Your task to perform on an android device: uninstall "Yahoo Mail" Image 0: 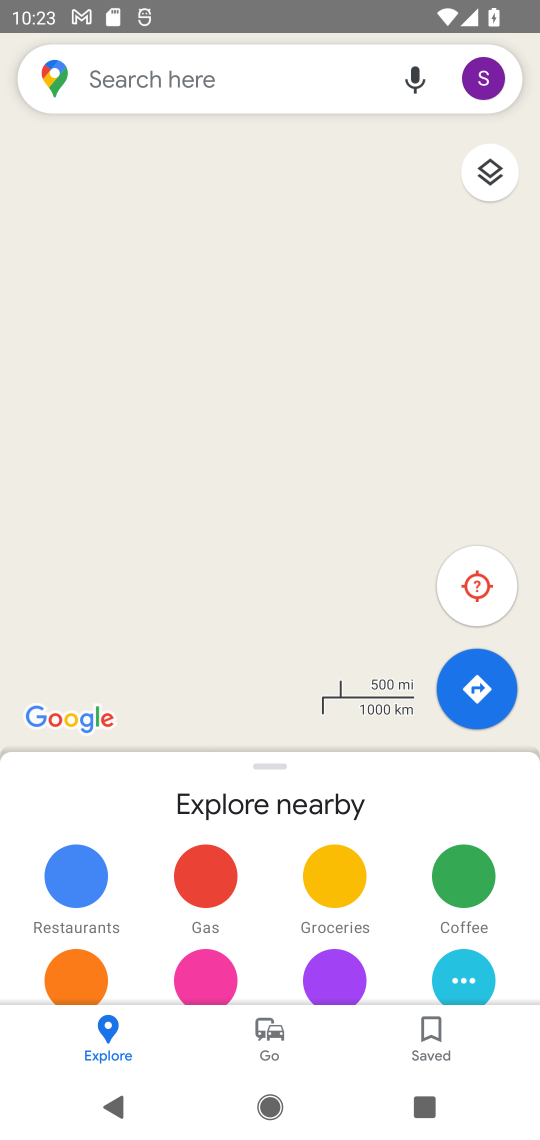
Step 0: press back button
Your task to perform on an android device: uninstall "Yahoo Mail" Image 1: 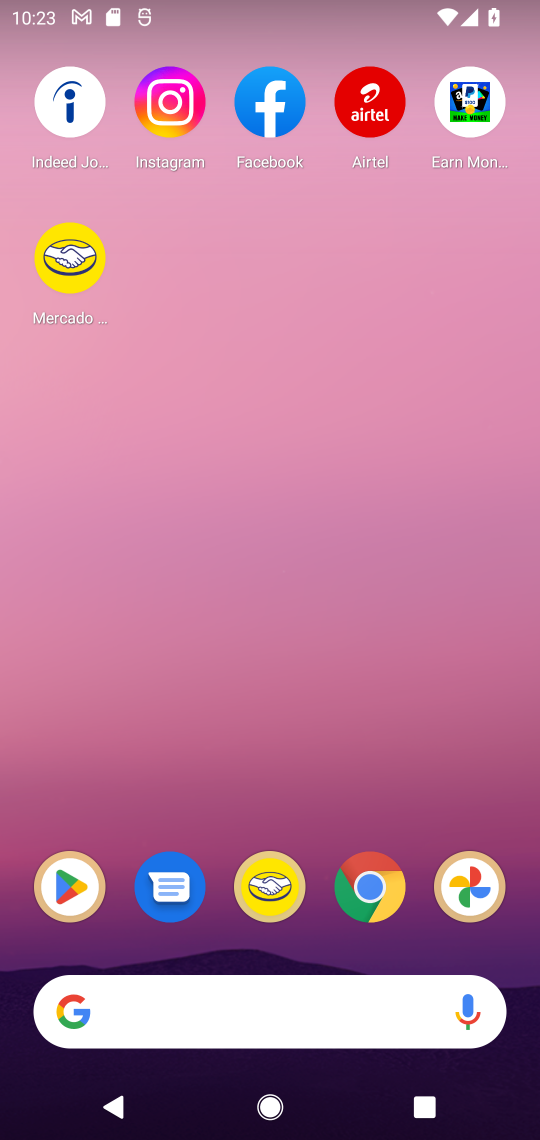
Step 1: drag from (292, 957) to (290, 140)
Your task to perform on an android device: uninstall "Yahoo Mail" Image 2: 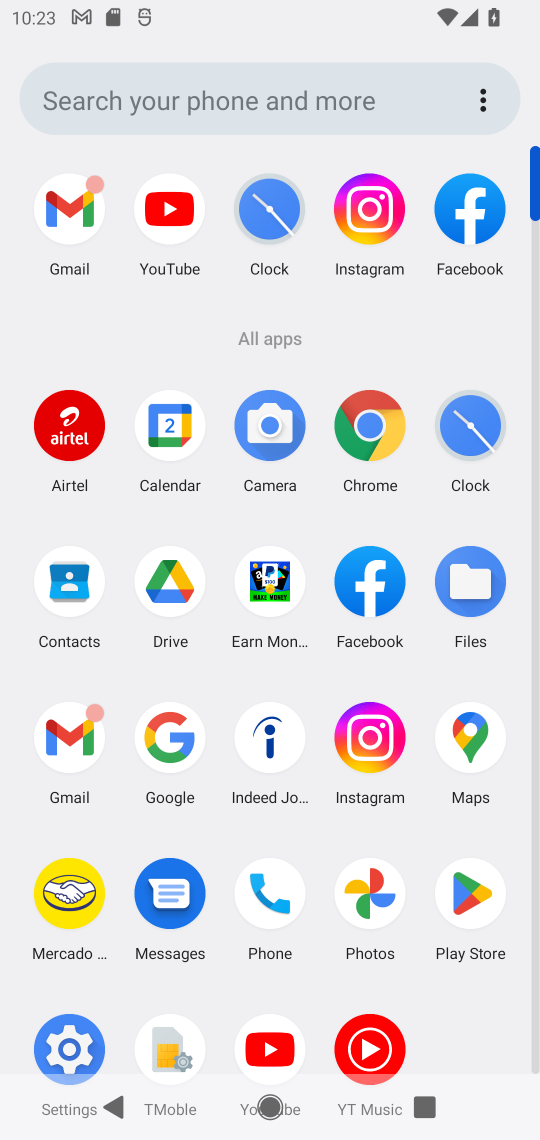
Step 2: click (463, 909)
Your task to perform on an android device: uninstall "Yahoo Mail" Image 3: 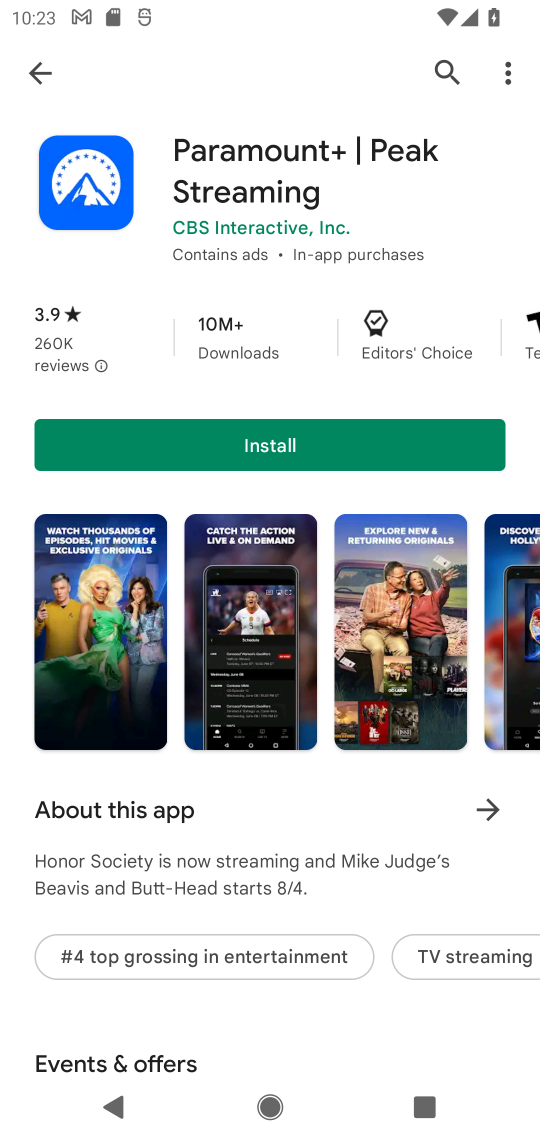
Step 3: click (41, 73)
Your task to perform on an android device: uninstall "Yahoo Mail" Image 4: 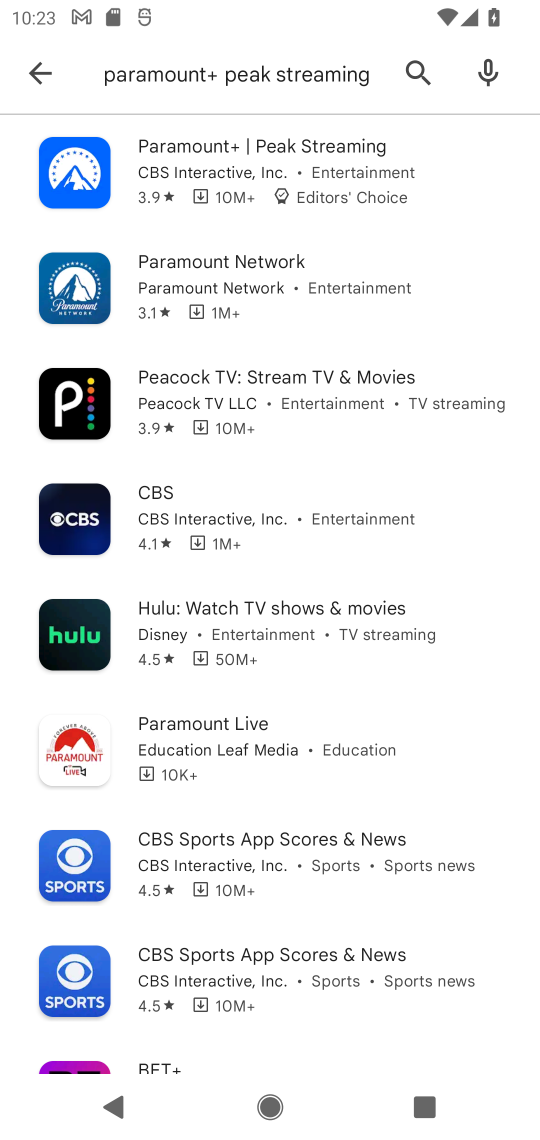
Step 4: click (46, 75)
Your task to perform on an android device: uninstall "Yahoo Mail" Image 5: 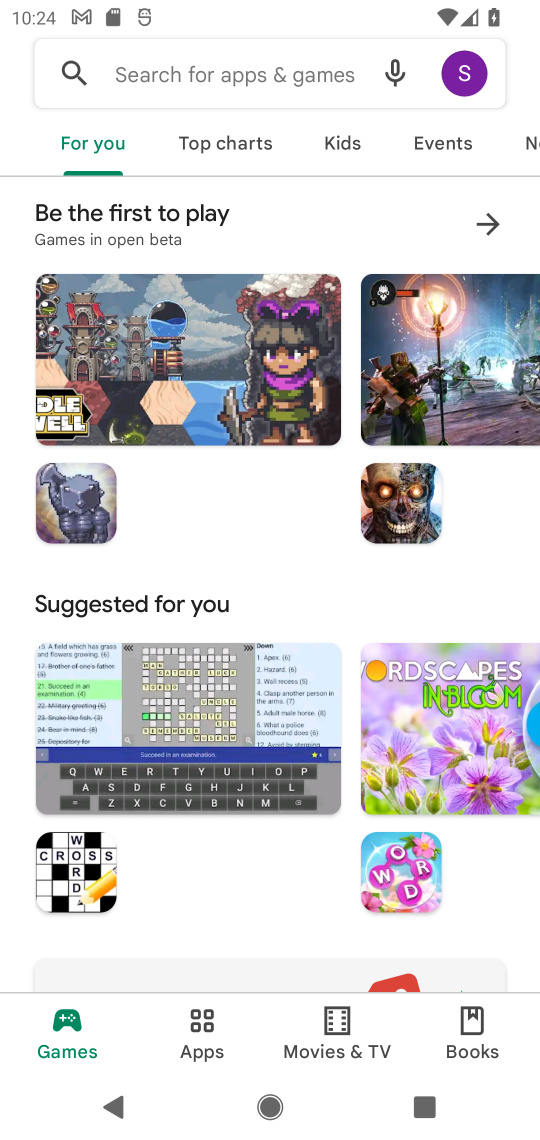
Step 5: click (123, 82)
Your task to perform on an android device: uninstall "Yahoo Mail" Image 6: 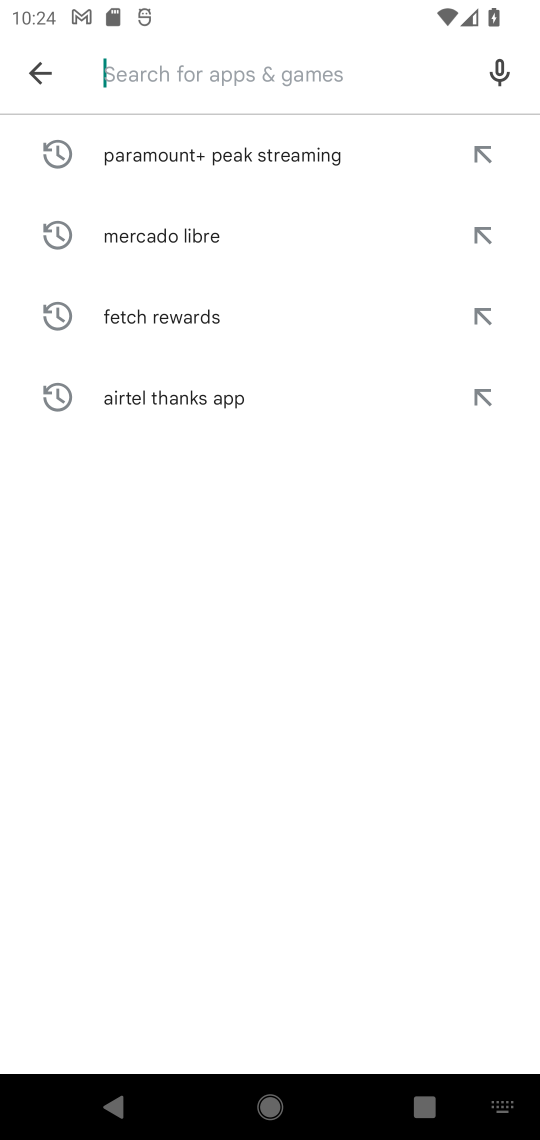
Step 6: type "Yahoo Mai"
Your task to perform on an android device: uninstall "Yahoo Mail" Image 7: 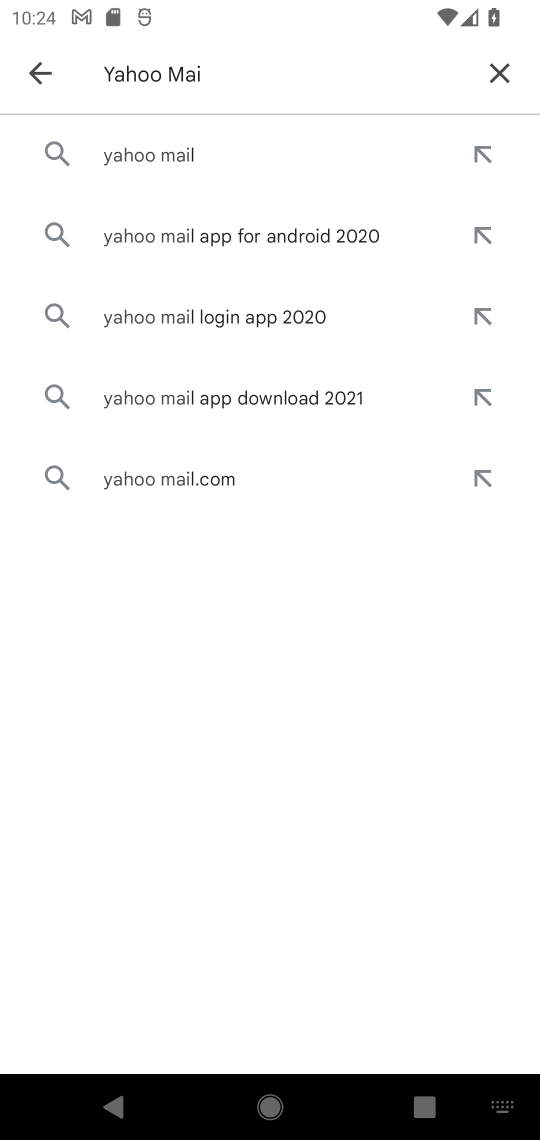
Step 7: click (104, 159)
Your task to perform on an android device: uninstall "Yahoo Mail" Image 8: 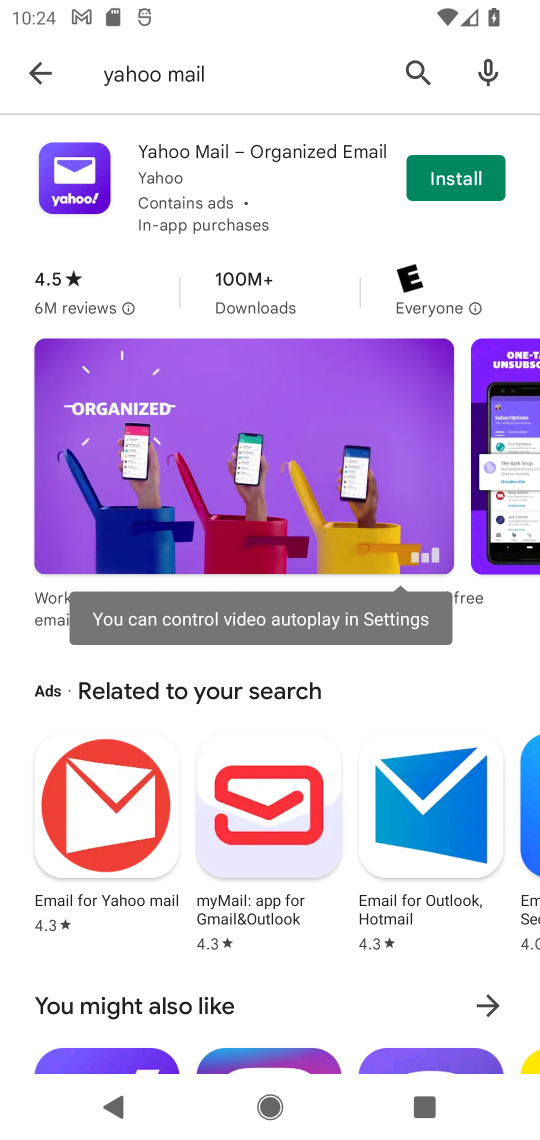
Step 8: task complete